Your task to perform on an android device: open wifi settings Image 0: 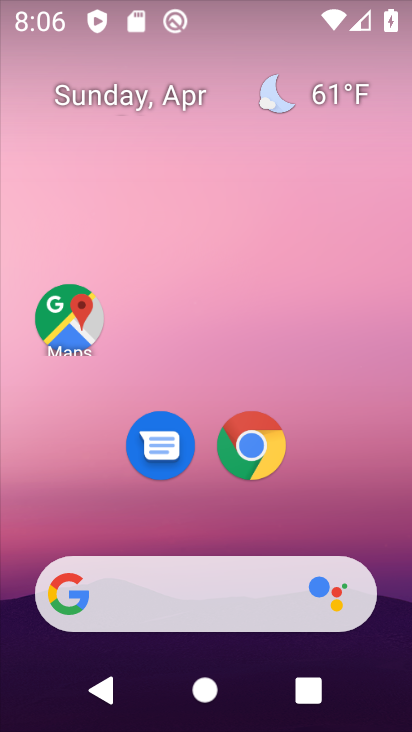
Step 0: drag from (190, 442) to (201, 160)
Your task to perform on an android device: open wifi settings Image 1: 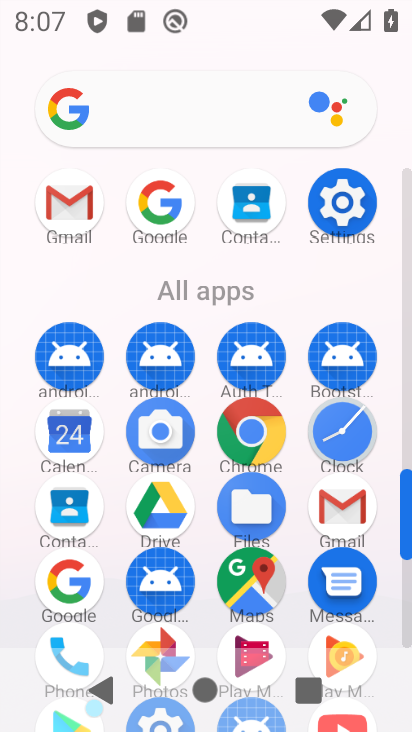
Step 1: click (352, 212)
Your task to perform on an android device: open wifi settings Image 2: 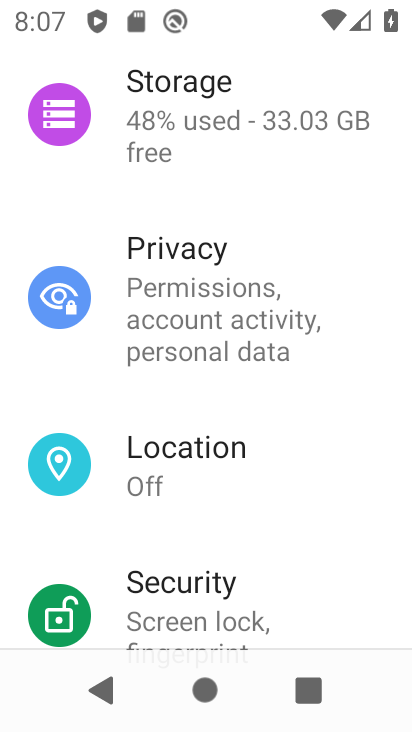
Step 2: drag from (222, 165) to (238, 396)
Your task to perform on an android device: open wifi settings Image 3: 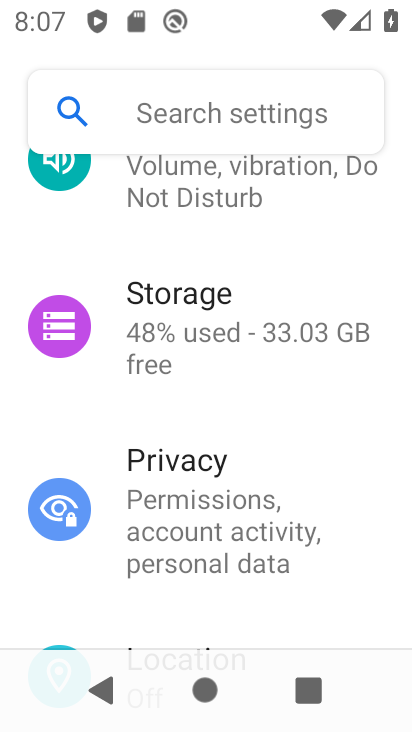
Step 3: drag from (255, 203) to (252, 447)
Your task to perform on an android device: open wifi settings Image 4: 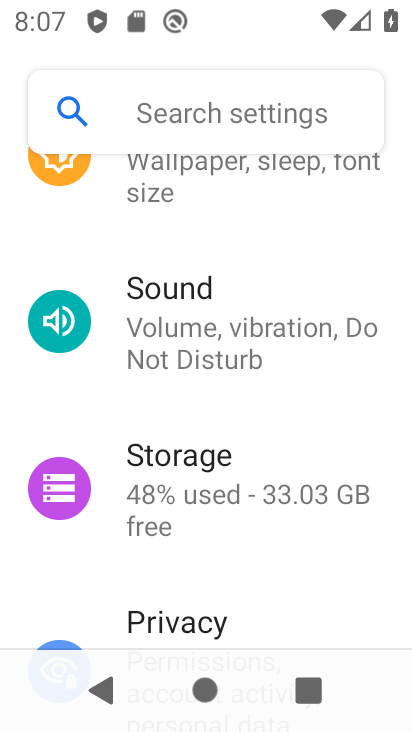
Step 4: drag from (258, 217) to (246, 452)
Your task to perform on an android device: open wifi settings Image 5: 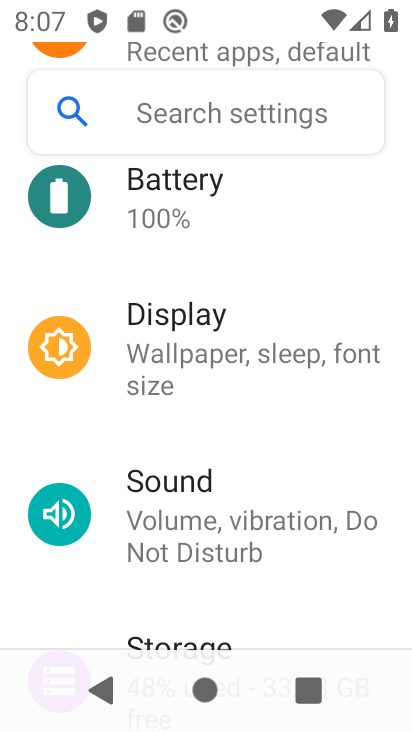
Step 5: drag from (221, 288) to (218, 506)
Your task to perform on an android device: open wifi settings Image 6: 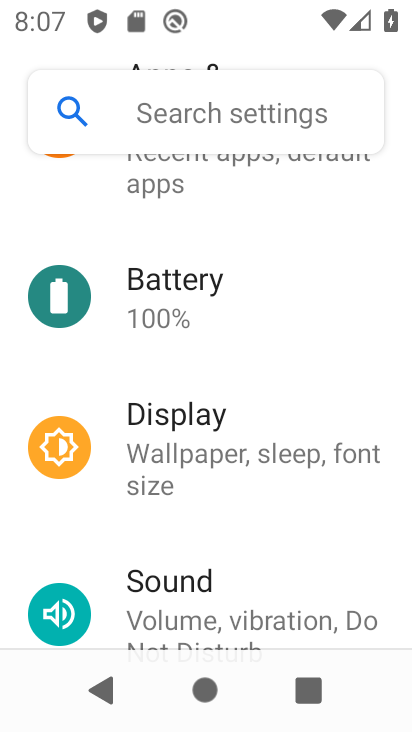
Step 6: drag from (255, 256) to (257, 659)
Your task to perform on an android device: open wifi settings Image 7: 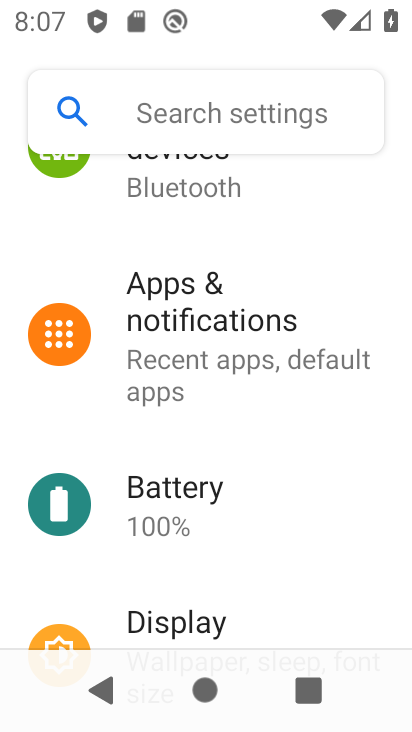
Step 7: drag from (267, 254) to (270, 514)
Your task to perform on an android device: open wifi settings Image 8: 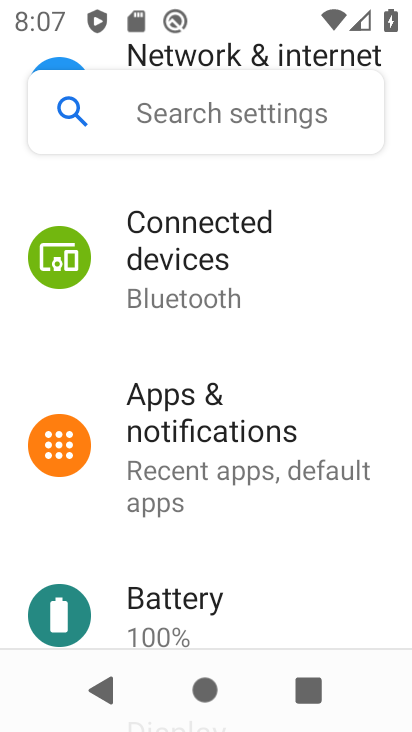
Step 8: drag from (258, 223) to (256, 542)
Your task to perform on an android device: open wifi settings Image 9: 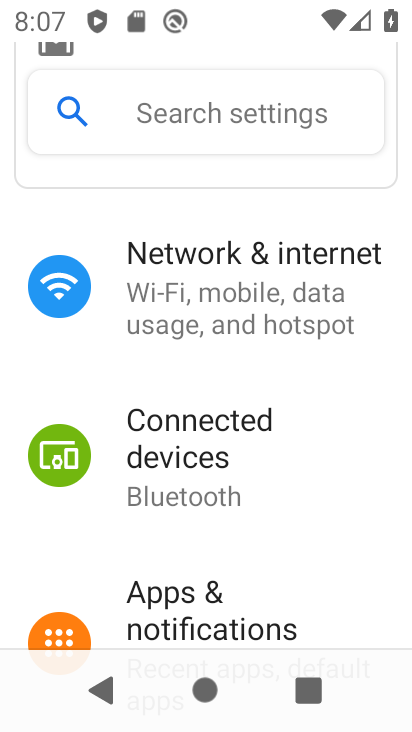
Step 9: click (231, 256)
Your task to perform on an android device: open wifi settings Image 10: 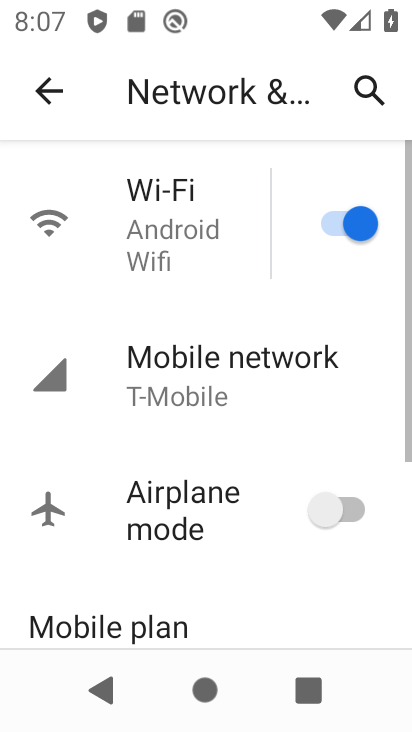
Step 10: click (152, 218)
Your task to perform on an android device: open wifi settings Image 11: 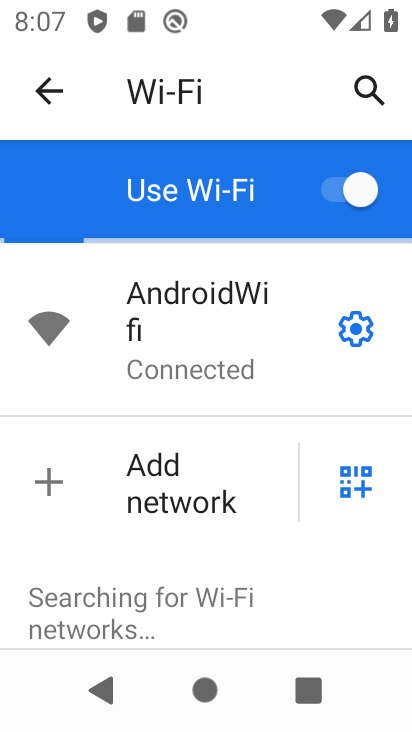
Step 11: drag from (234, 484) to (279, 179)
Your task to perform on an android device: open wifi settings Image 12: 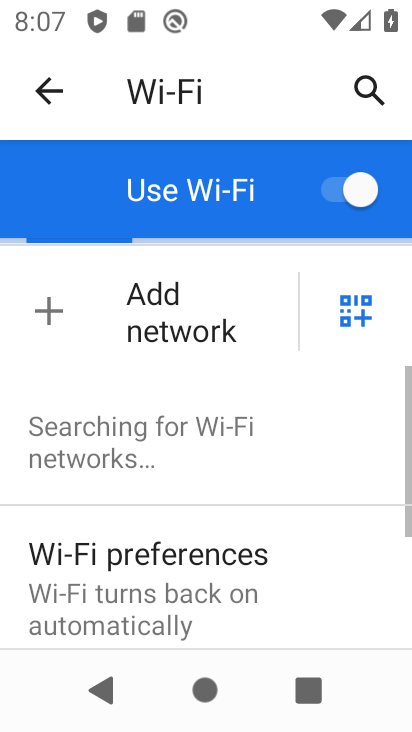
Step 12: drag from (215, 568) to (237, 328)
Your task to perform on an android device: open wifi settings Image 13: 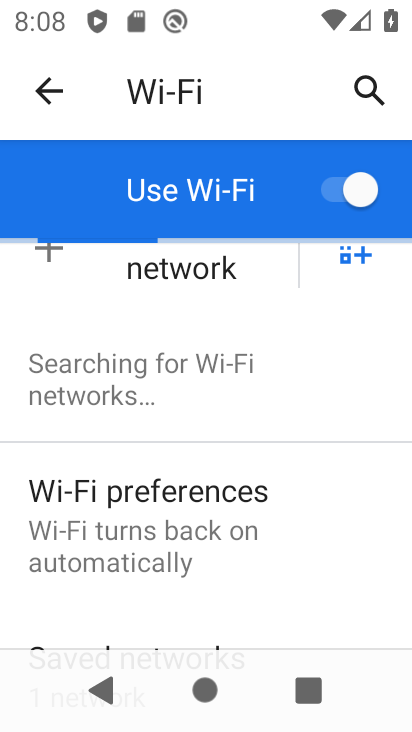
Step 13: drag from (237, 602) to (267, 338)
Your task to perform on an android device: open wifi settings Image 14: 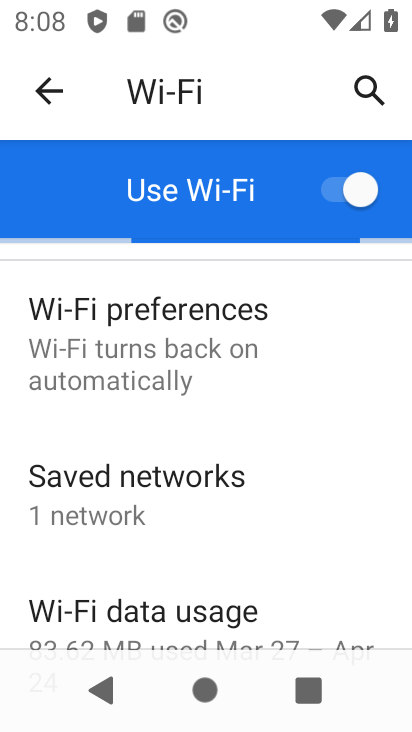
Step 14: drag from (248, 608) to (290, 325)
Your task to perform on an android device: open wifi settings Image 15: 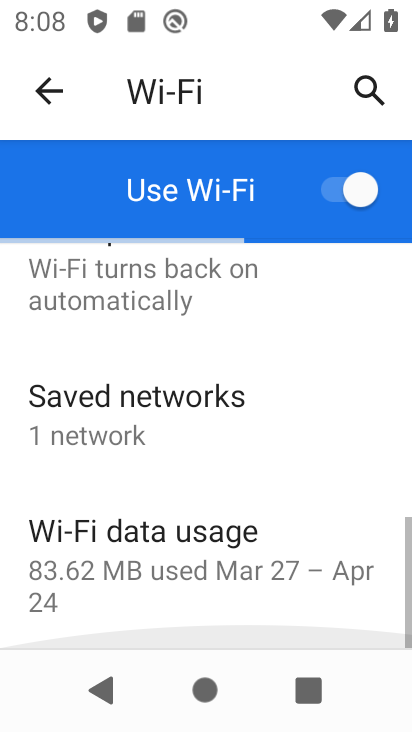
Step 15: drag from (267, 538) to (318, 326)
Your task to perform on an android device: open wifi settings Image 16: 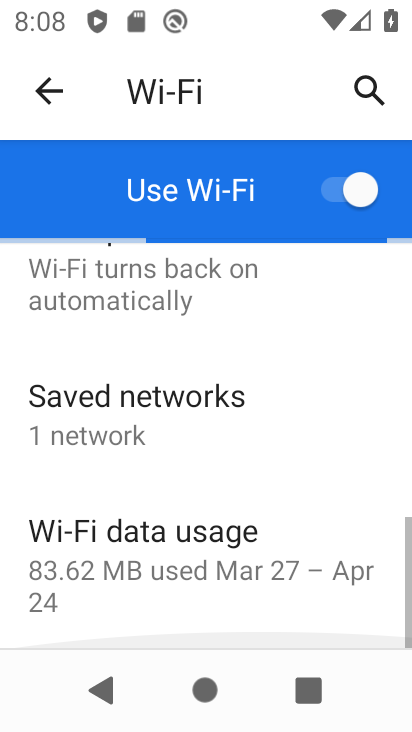
Step 16: drag from (294, 352) to (299, 636)
Your task to perform on an android device: open wifi settings Image 17: 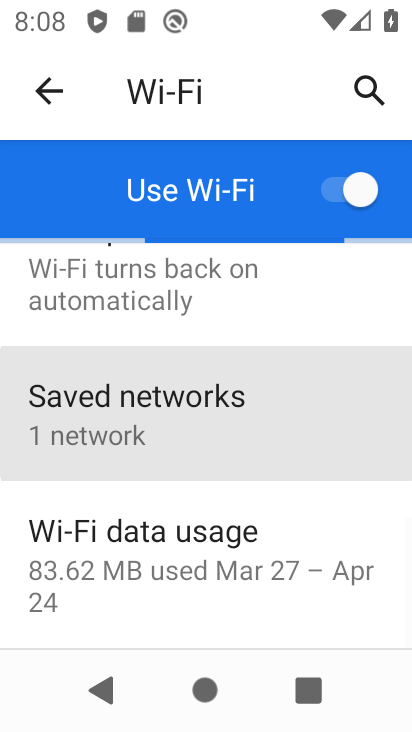
Step 17: click (283, 644)
Your task to perform on an android device: open wifi settings Image 18: 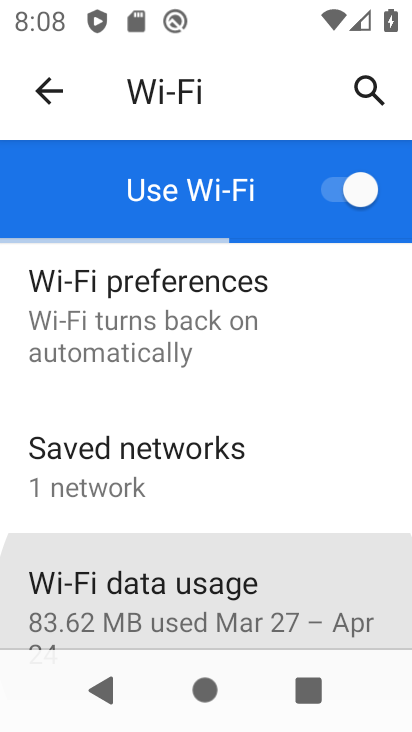
Step 18: drag from (265, 368) to (280, 587)
Your task to perform on an android device: open wifi settings Image 19: 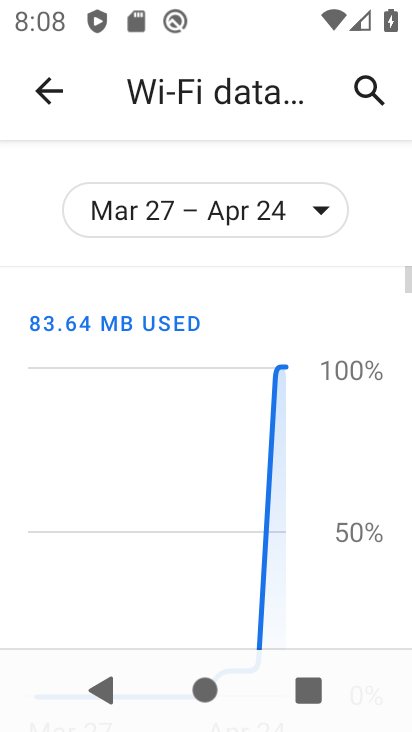
Step 19: click (47, 85)
Your task to perform on an android device: open wifi settings Image 20: 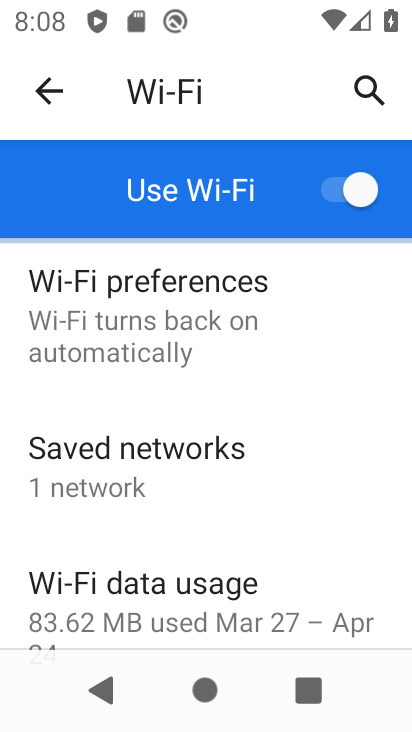
Step 20: task complete